Your task to perform on an android device: Open the stopwatch Image 0: 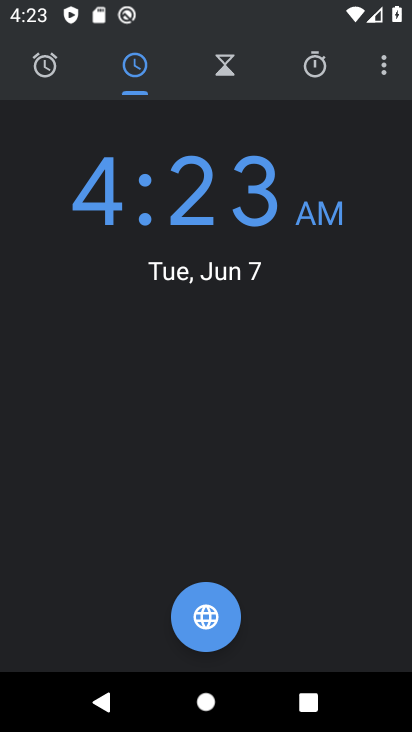
Step 0: press back button
Your task to perform on an android device: Open the stopwatch Image 1: 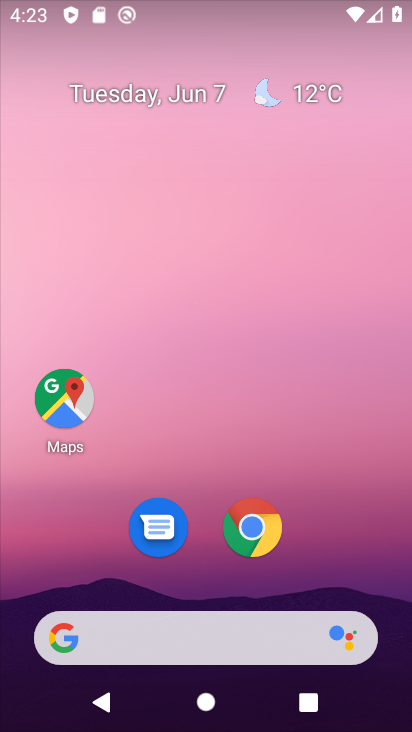
Step 1: drag from (340, 519) to (265, 166)
Your task to perform on an android device: Open the stopwatch Image 2: 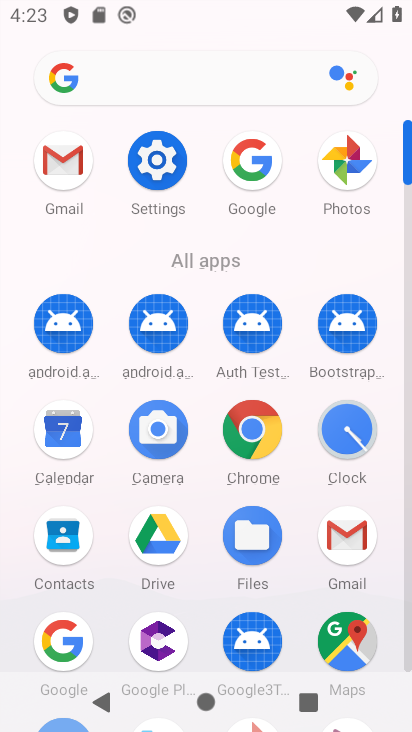
Step 2: click (346, 430)
Your task to perform on an android device: Open the stopwatch Image 3: 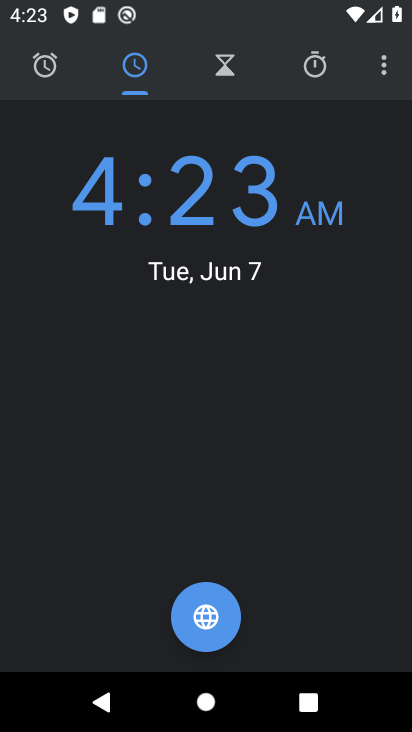
Step 3: click (317, 66)
Your task to perform on an android device: Open the stopwatch Image 4: 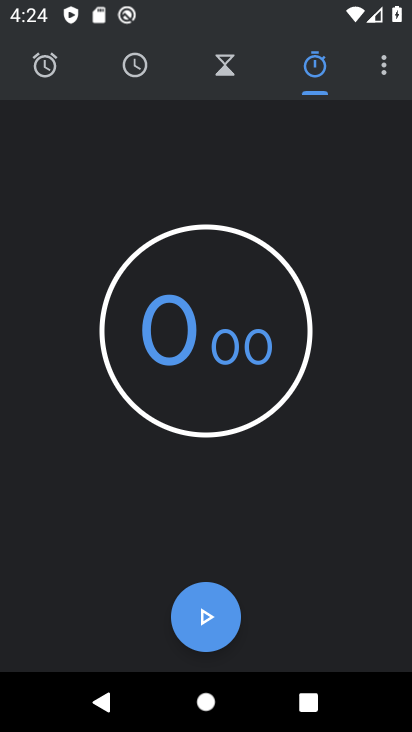
Step 4: task complete